Your task to perform on an android device: What's on my calendar tomorrow? Image 0: 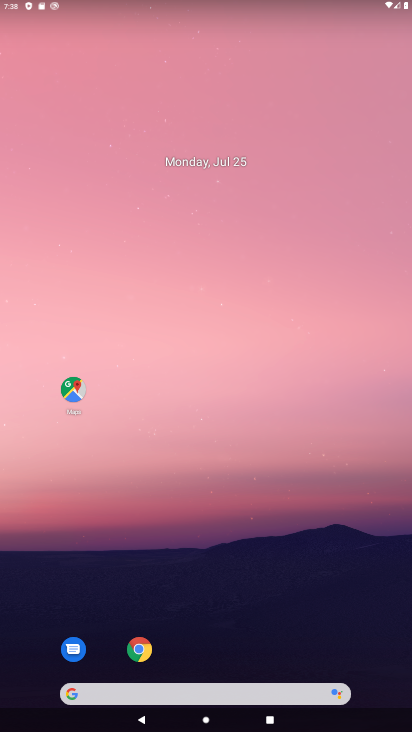
Step 0: drag from (378, 663) to (308, 173)
Your task to perform on an android device: What's on my calendar tomorrow? Image 1: 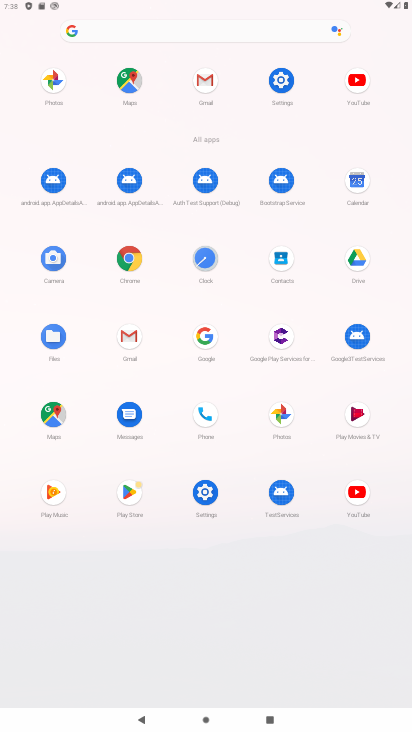
Step 1: click (363, 183)
Your task to perform on an android device: What's on my calendar tomorrow? Image 2: 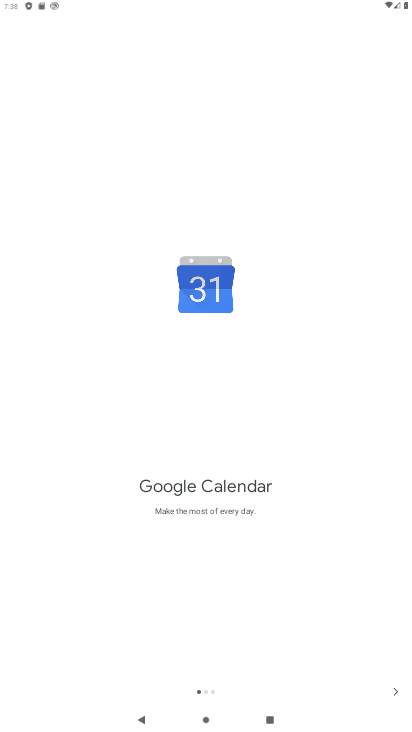
Step 2: click (396, 695)
Your task to perform on an android device: What's on my calendar tomorrow? Image 3: 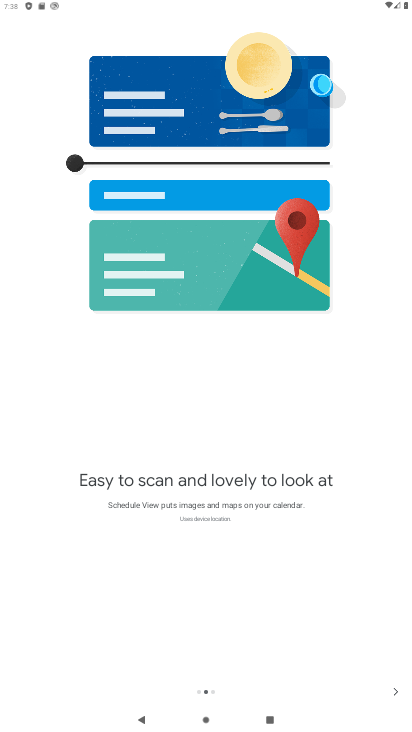
Step 3: click (396, 695)
Your task to perform on an android device: What's on my calendar tomorrow? Image 4: 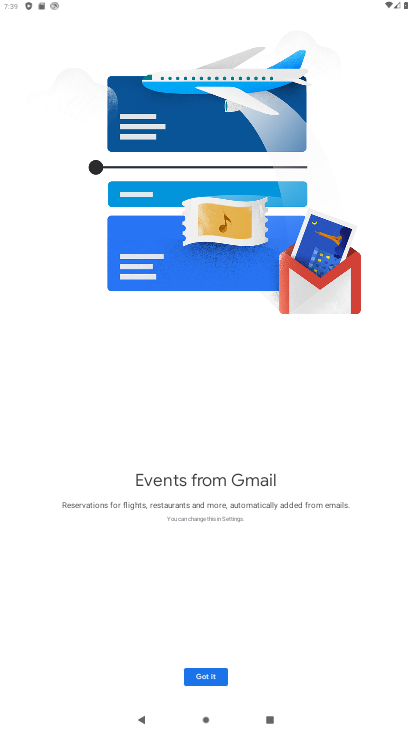
Step 4: click (208, 678)
Your task to perform on an android device: What's on my calendar tomorrow? Image 5: 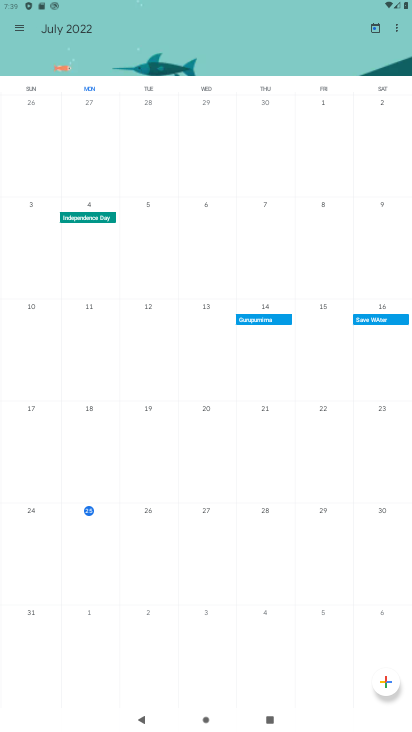
Step 5: click (23, 27)
Your task to perform on an android device: What's on my calendar tomorrow? Image 6: 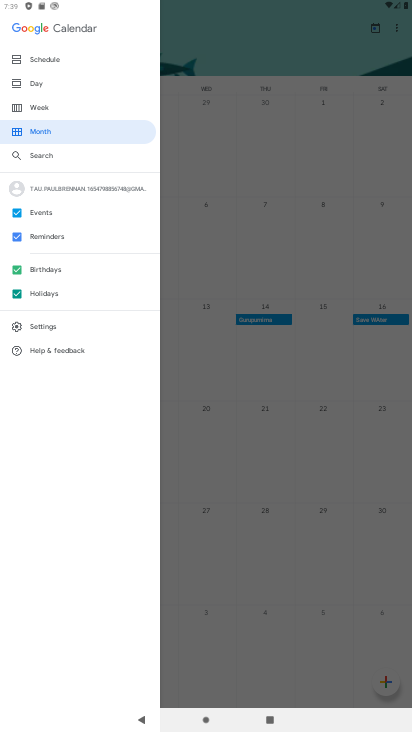
Step 6: click (40, 88)
Your task to perform on an android device: What's on my calendar tomorrow? Image 7: 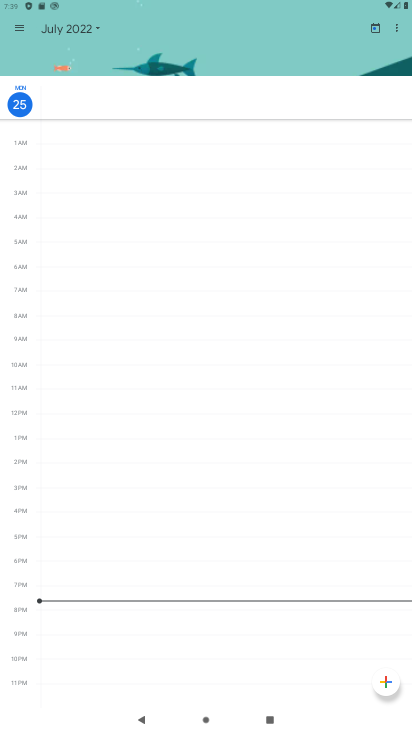
Step 7: click (99, 29)
Your task to perform on an android device: What's on my calendar tomorrow? Image 8: 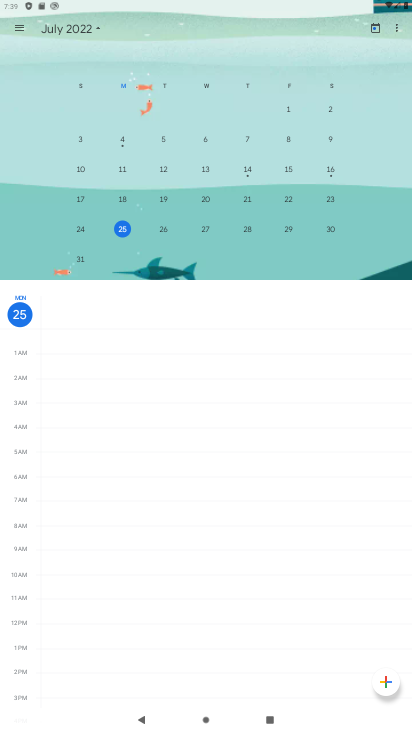
Step 8: click (161, 228)
Your task to perform on an android device: What's on my calendar tomorrow? Image 9: 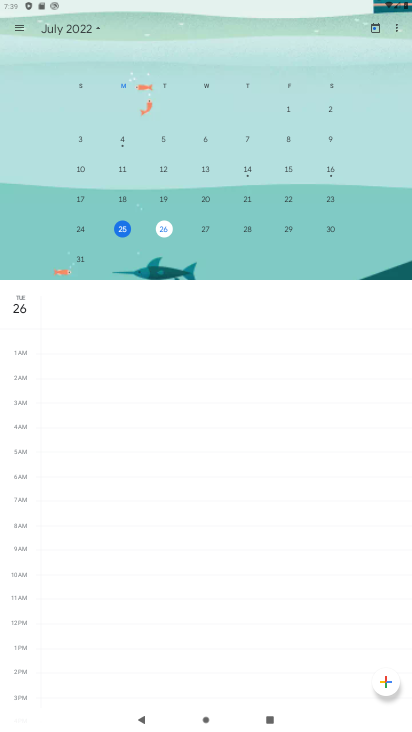
Step 9: task complete